Your task to perform on an android device: turn smart compose on in the gmail app Image 0: 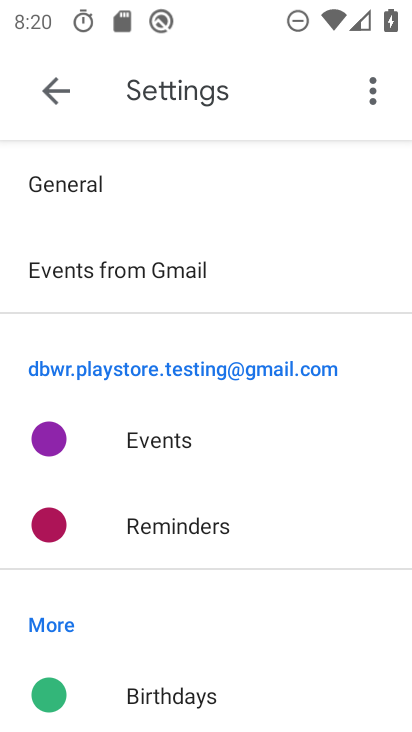
Step 0: press home button
Your task to perform on an android device: turn smart compose on in the gmail app Image 1: 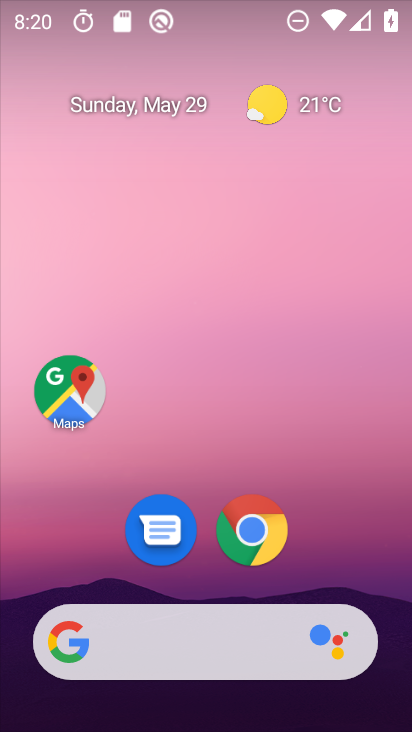
Step 1: drag from (235, 639) to (342, 81)
Your task to perform on an android device: turn smart compose on in the gmail app Image 2: 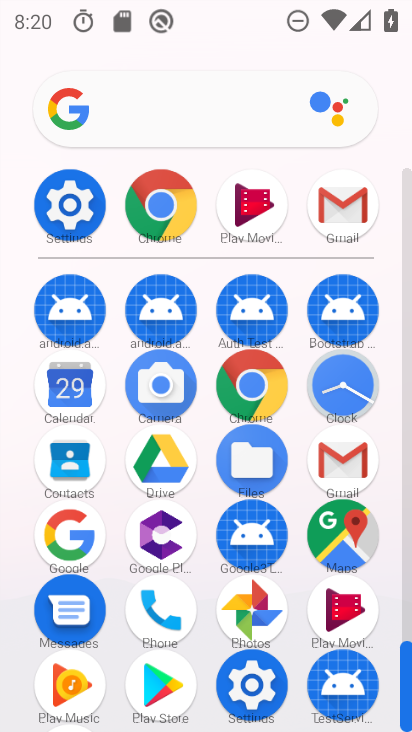
Step 2: click (342, 216)
Your task to perform on an android device: turn smart compose on in the gmail app Image 3: 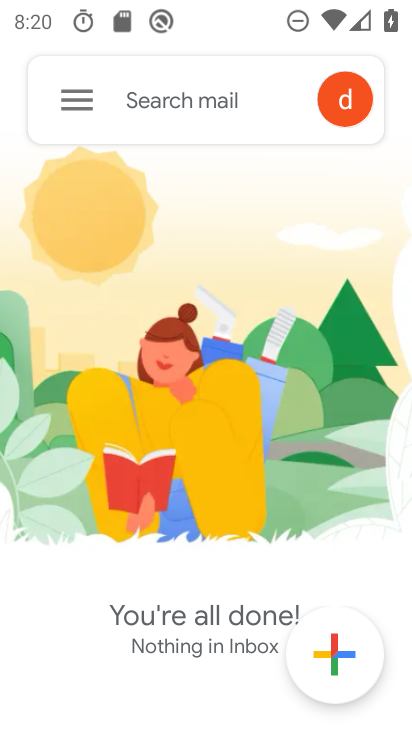
Step 3: click (65, 105)
Your task to perform on an android device: turn smart compose on in the gmail app Image 4: 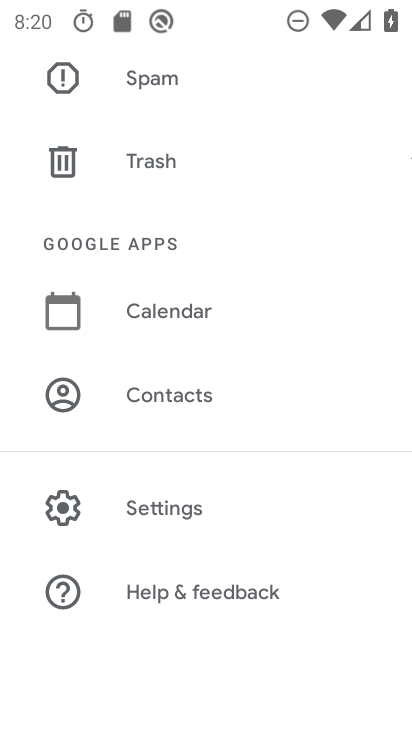
Step 4: click (168, 505)
Your task to perform on an android device: turn smart compose on in the gmail app Image 5: 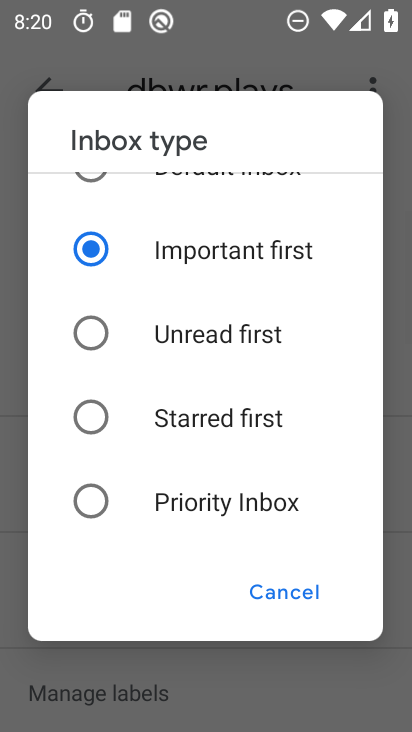
Step 5: click (291, 593)
Your task to perform on an android device: turn smart compose on in the gmail app Image 6: 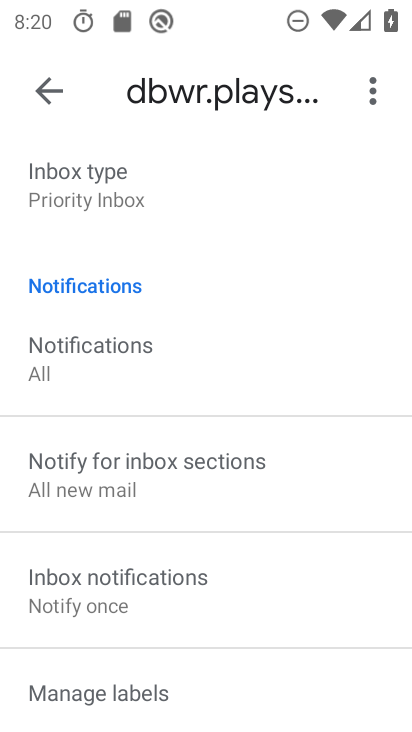
Step 6: drag from (218, 621) to (290, 195)
Your task to perform on an android device: turn smart compose on in the gmail app Image 7: 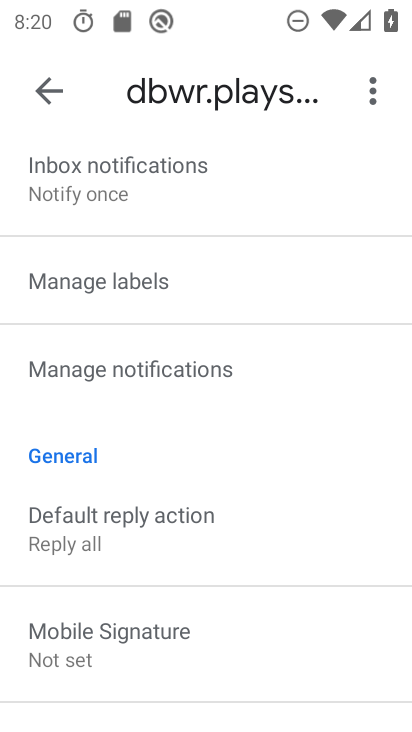
Step 7: drag from (263, 589) to (298, 250)
Your task to perform on an android device: turn smart compose on in the gmail app Image 8: 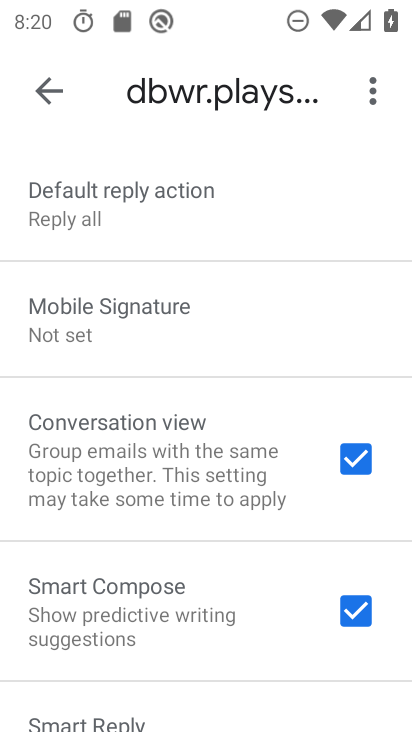
Step 8: drag from (248, 532) to (253, 336)
Your task to perform on an android device: turn smart compose on in the gmail app Image 9: 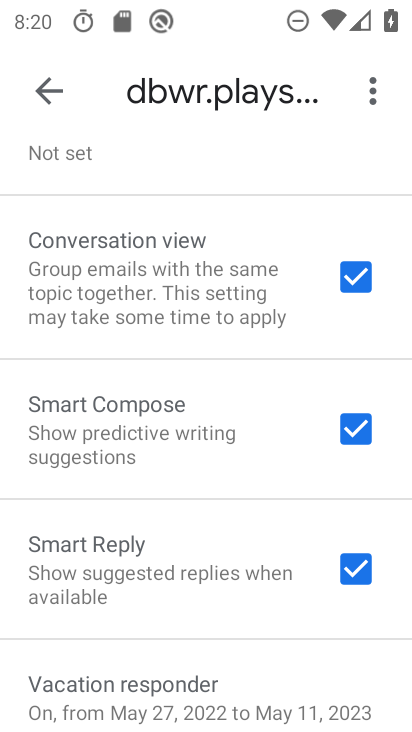
Step 9: click (374, 430)
Your task to perform on an android device: turn smart compose on in the gmail app Image 10: 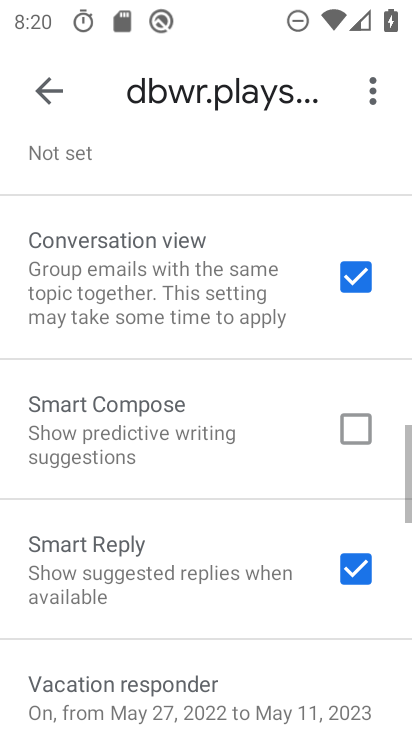
Step 10: click (374, 430)
Your task to perform on an android device: turn smart compose on in the gmail app Image 11: 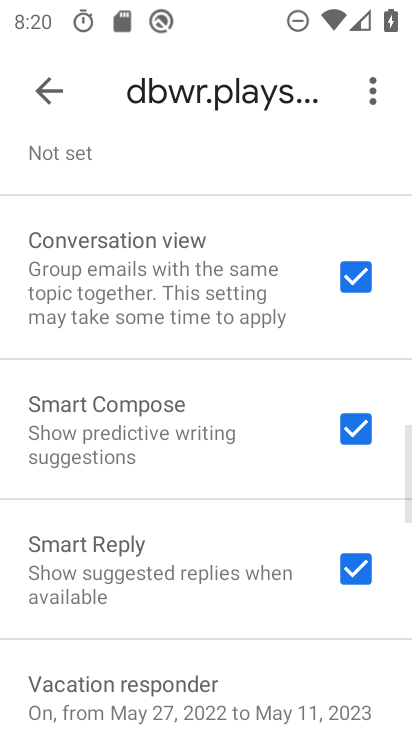
Step 11: task complete